Your task to perform on an android device: Search for sushi restaurants on Maps Image 0: 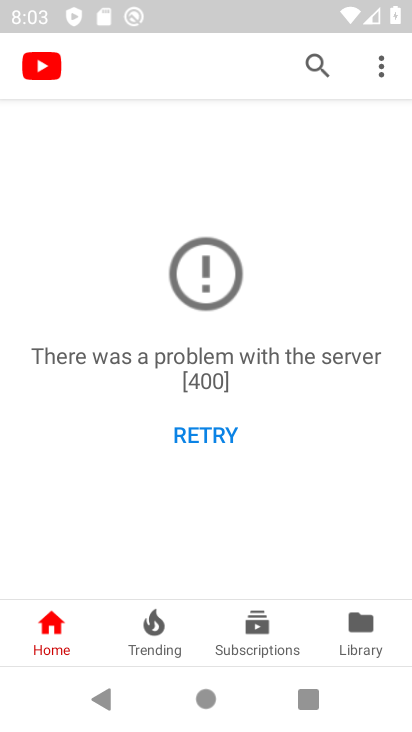
Step 0: press home button
Your task to perform on an android device: Search for sushi restaurants on Maps Image 1: 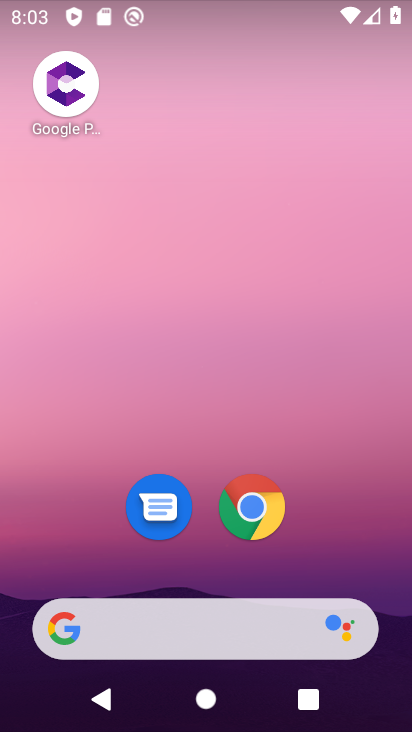
Step 1: drag from (274, 659) to (217, 199)
Your task to perform on an android device: Search for sushi restaurants on Maps Image 2: 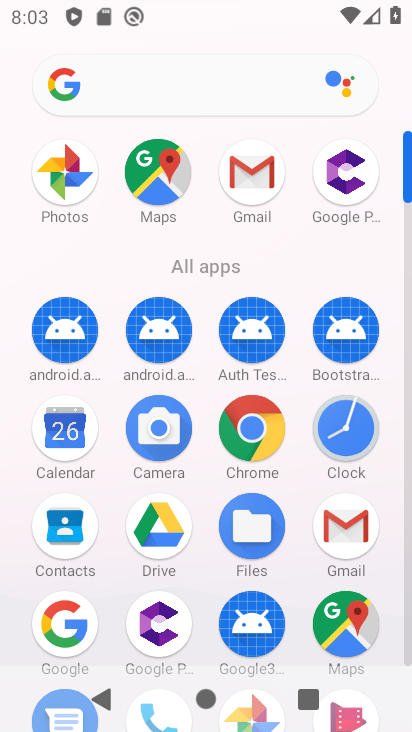
Step 2: click (167, 170)
Your task to perform on an android device: Search for sushi restaurants on Maps Image 3: 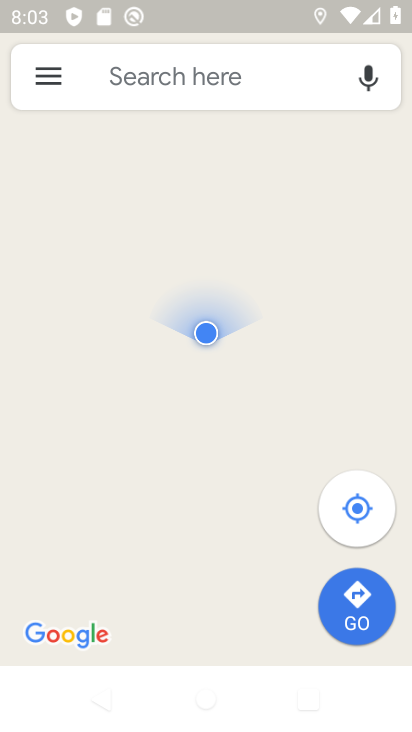
Step 3: click (159, 80)
Your task to perform on an android device: Search for sushi restaurants on Maps Image 4: 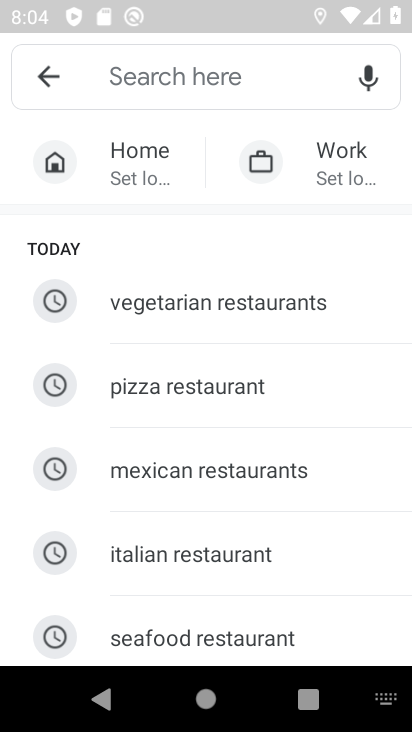
Step 4: click (371, 681)
Your task to perform on an android device: Search for sushi restaurants on Maps Image 5: 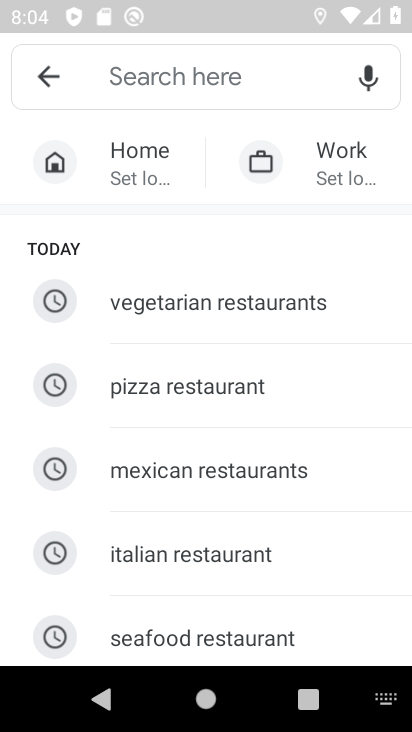
Step 5: click (382, 697)
Your task to perform on an android device: Search for sushi restaurants on Maps Image 6: 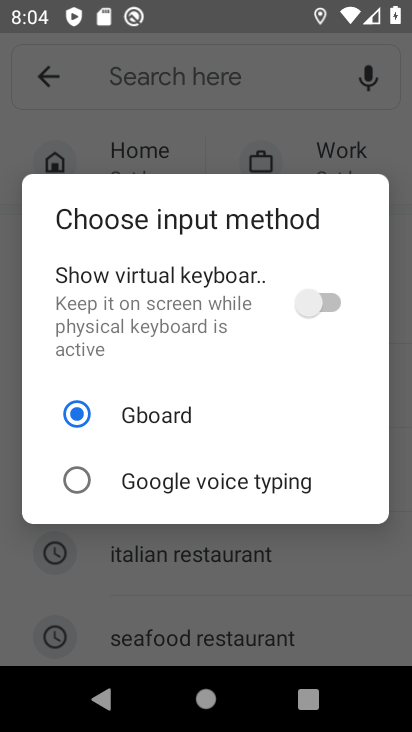
Step 6: click (339, 299)
Your task to perform on an android device: Search for sushi restaurants on Maps Image 7: 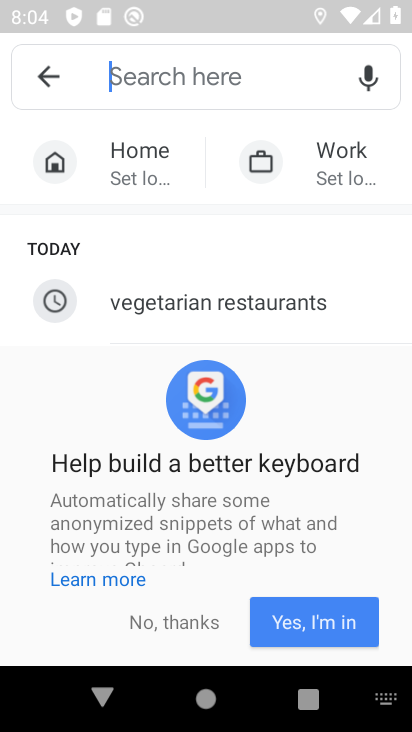
Step 7: click (169, 618)
Your task to perform on an android device: Search for sushi restaurants on Maps Image 8: 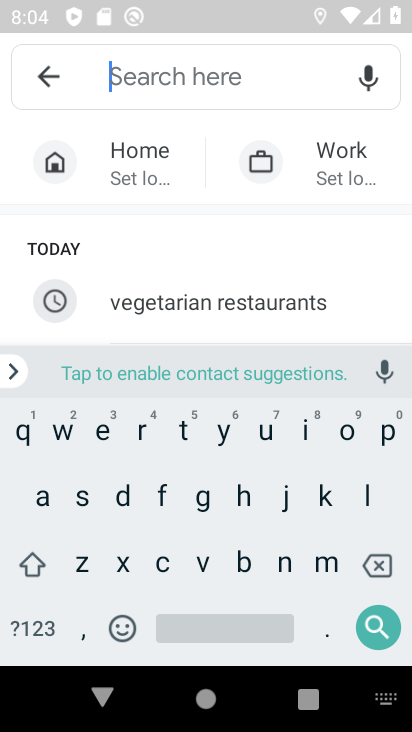
Step 8: click (81, 489)
Your task to perform on an android device: Search for sushi restaurants on Maps Image 9: 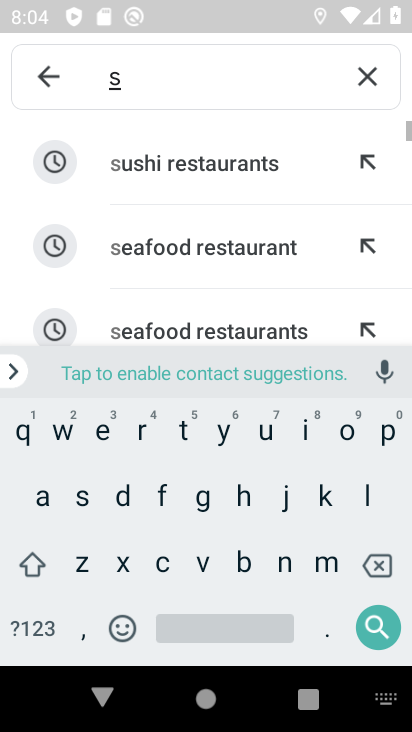
Step 9: click (265, 428)
Your task to perform on an android device: Search for sushi restaurants on Maps Image 10: 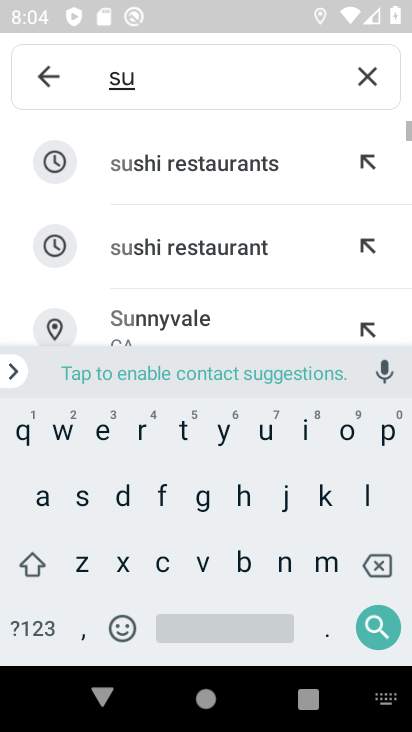
Step 10: click (181, 153)
Your task to perform on an android device: Search for sushi restaurants on Maps Image 11: 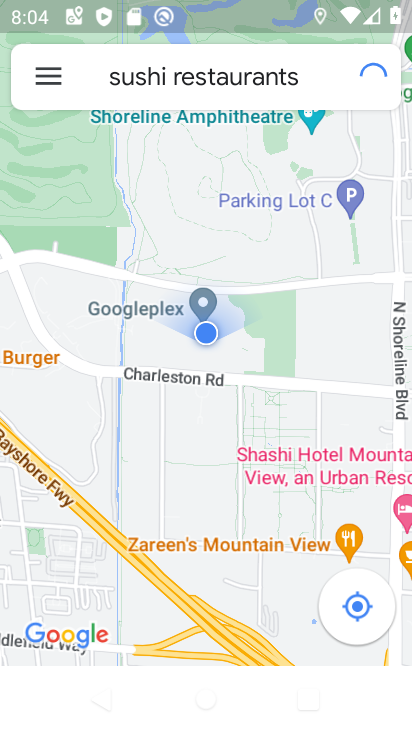
Step 11: task complete